Your task to perform on an android device: Go to accessibility settings Image 0: 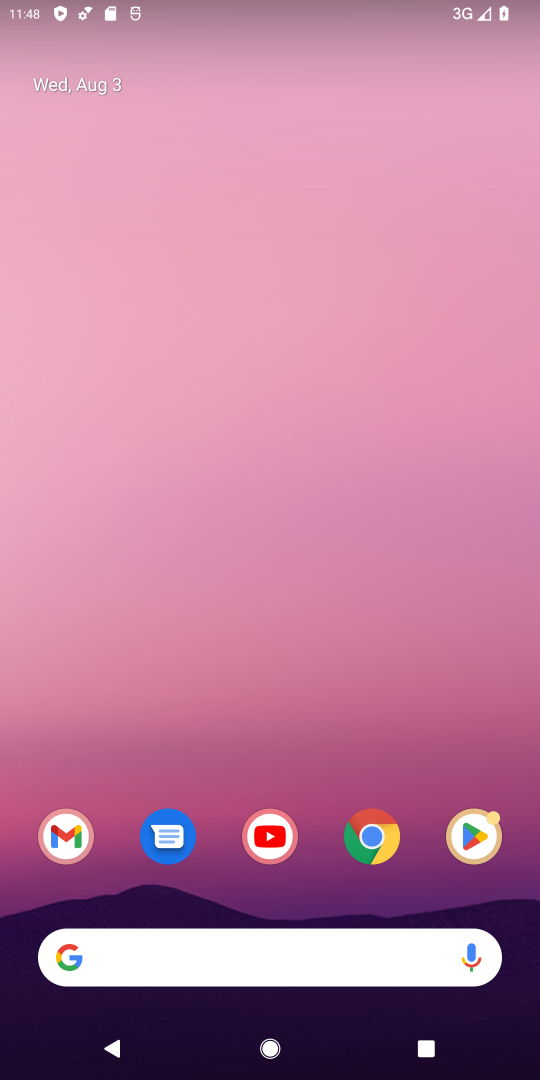
Step 0: drag from (251, 826) to (268, 401)
Your task to perform on an android device: Go to accessibility settings Image 1: 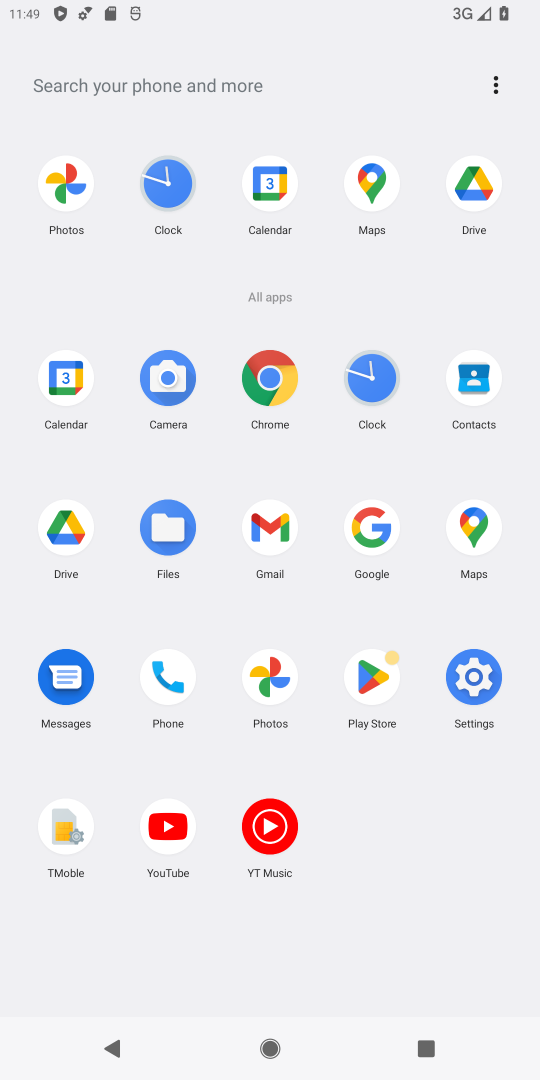
Step 1: click (464, 684)
Your task to perform on an android device: Go to accessibility settings Image 2: 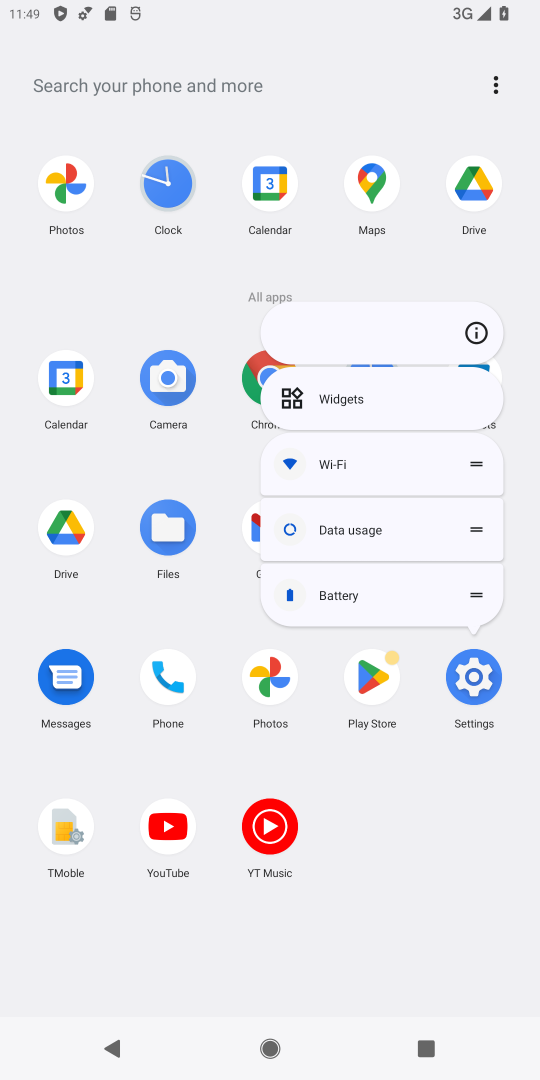
Step 2: click (477, 325)
Your task to perform on an android device: Go to accessibility settings Image 3: 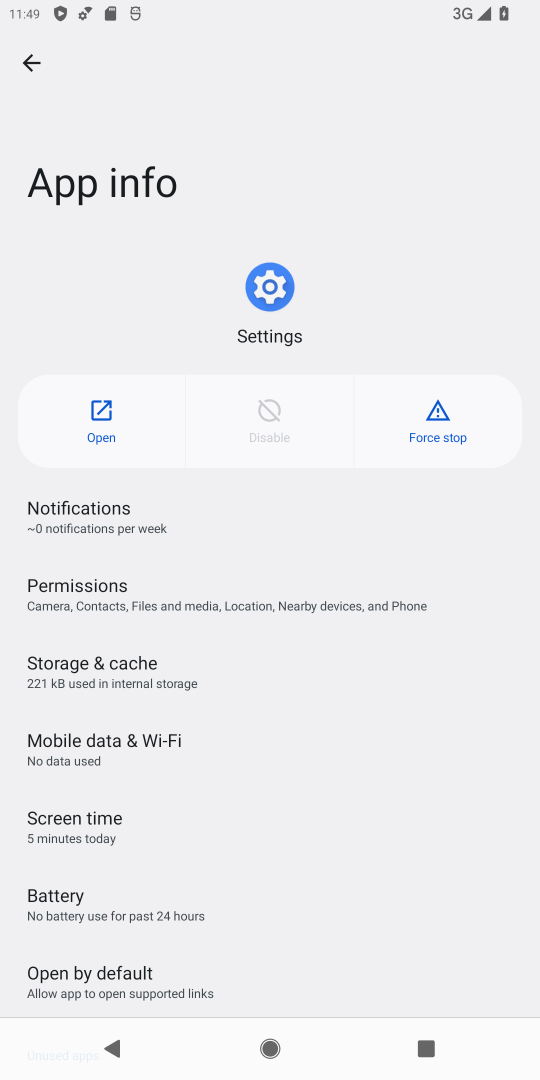
Step 3: click (93, 426)
Your task to perform on an android device: Go to accessibility settings Image 4: 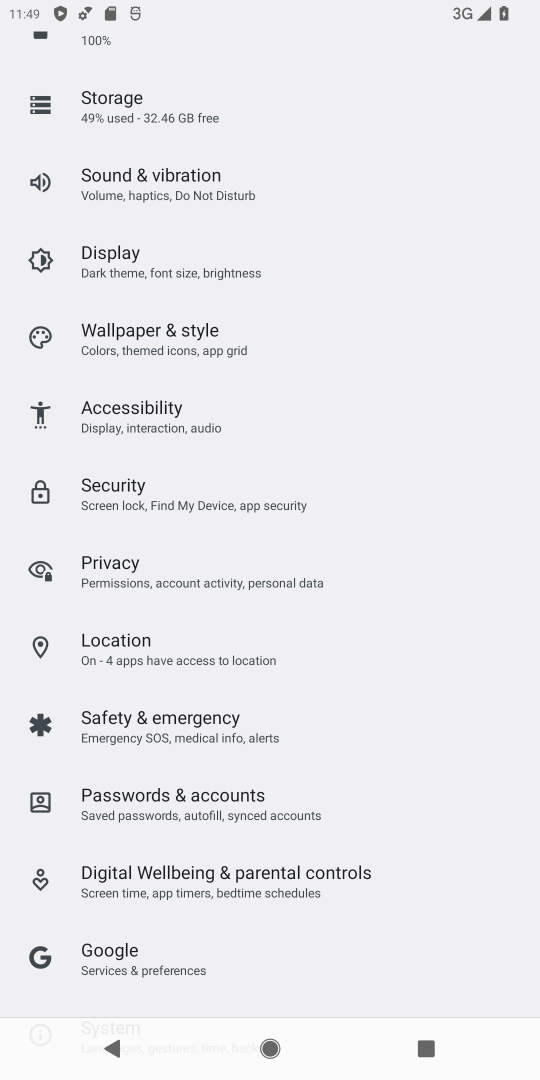
Step 4: drag from (117, 206) to (220, 956)
Your task to perform on an android device: Go to accessibility settings Image 5: 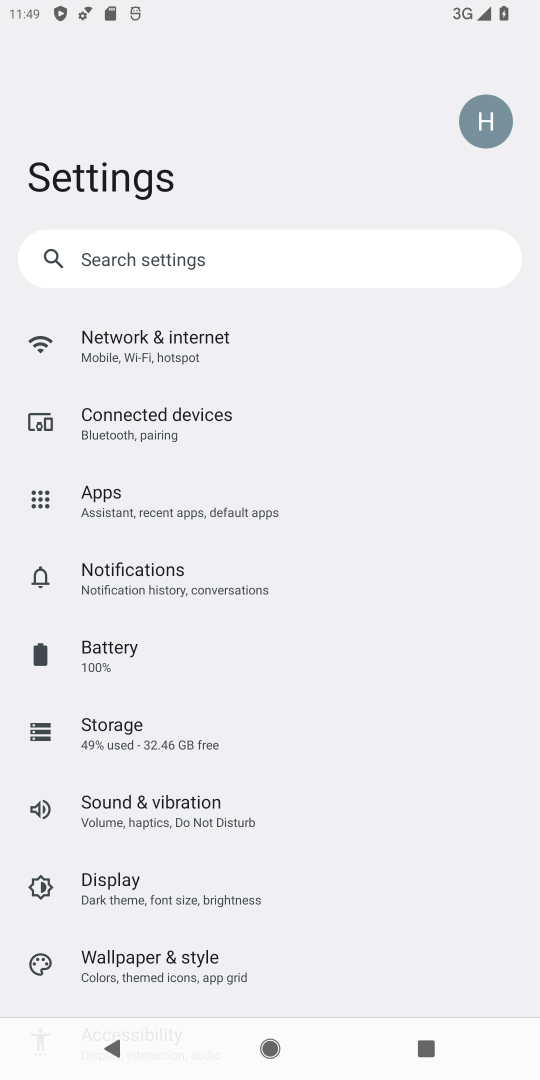
Step 5: drag from (195, 896) to (229, 512)
Your task to perform on an android device: Go to accessibility settings Image 6: 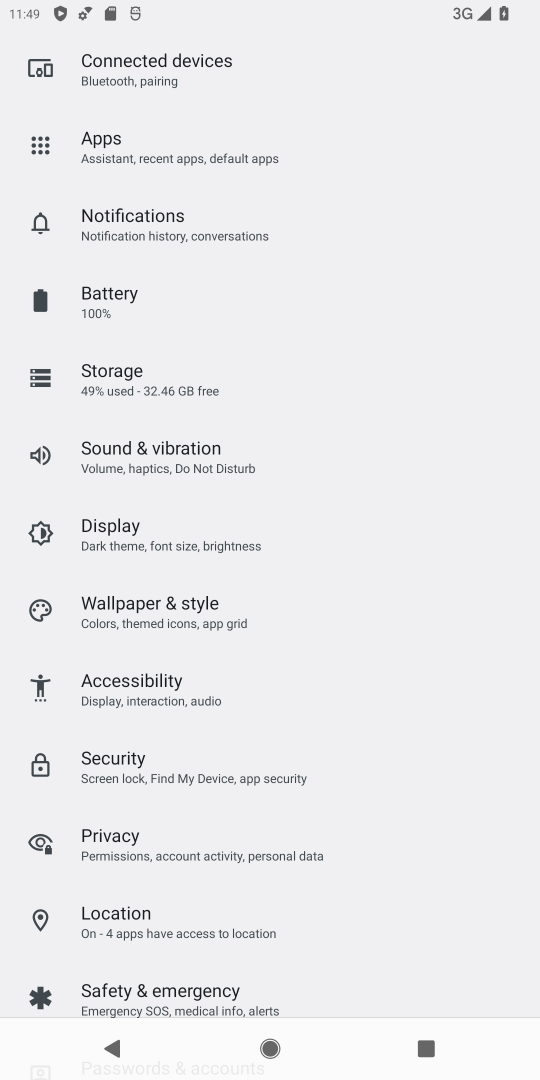
Step 6: click (150, 685)
Your task to perform on an android device: Go to accessibility settings Image 7: 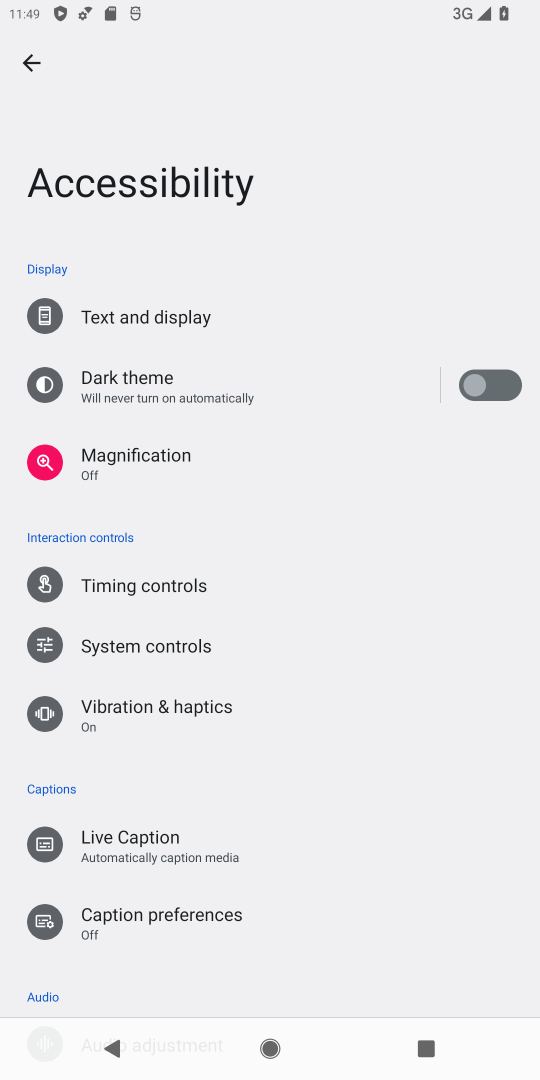
Step 7: task complete